Your task to perform on an android device: turn on the 12-hour format for clock Image 0: 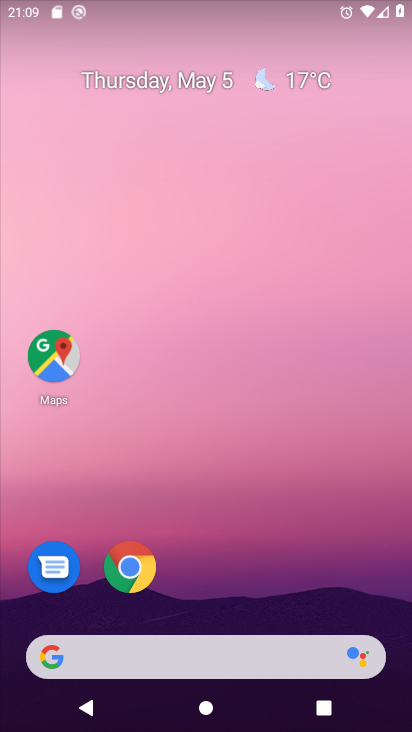
Step 0: drag from (307, 551) to (332, 61)
Your task to perform on an android device: turn on the 12-hour format for clock Image 1: 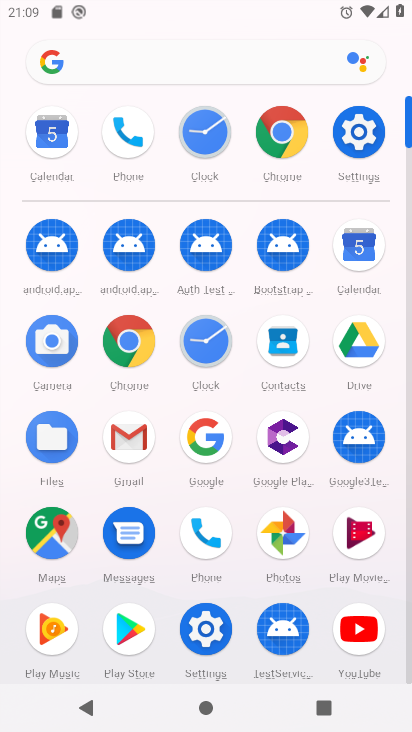
Step 1: click (208, 136)
Your task to perform on an android device: turn on the 12-hour format for clock Image 2: 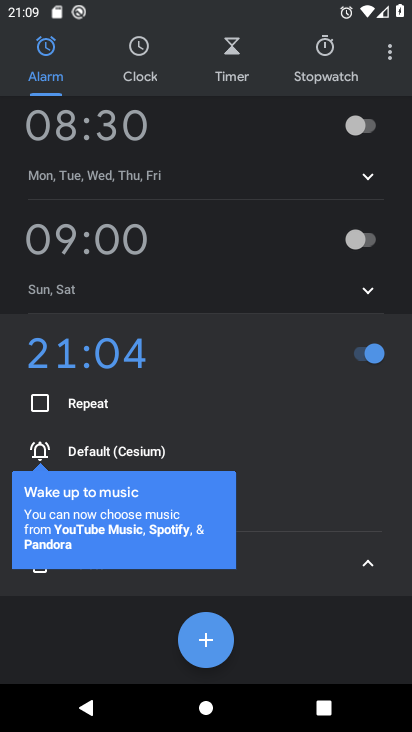
Step 2: click (393, 49)
Your task to perform on an android device: turn on the 12-hour format for clock Image 3: 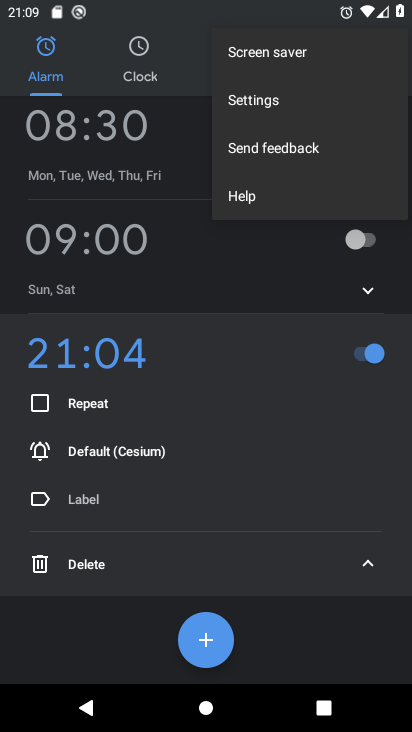
Step 3: click (315, 106)
Your task to perform on an android device: turn on the 12-hour format for clock Image 4: 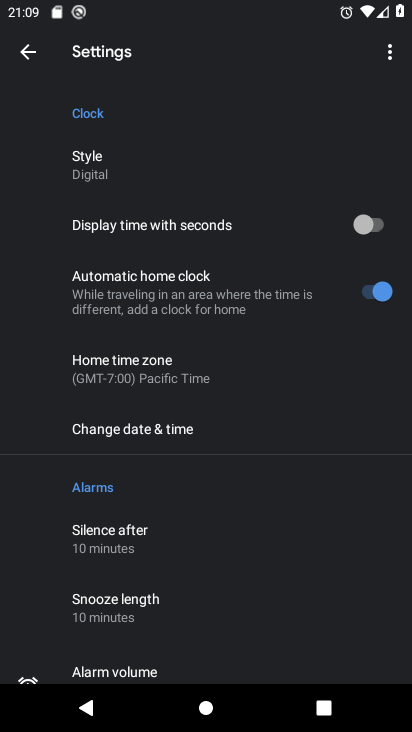
Step 4: click (240, 431)
Your task to perform on an android device: turn on the 12-hour format for clock Image 5: 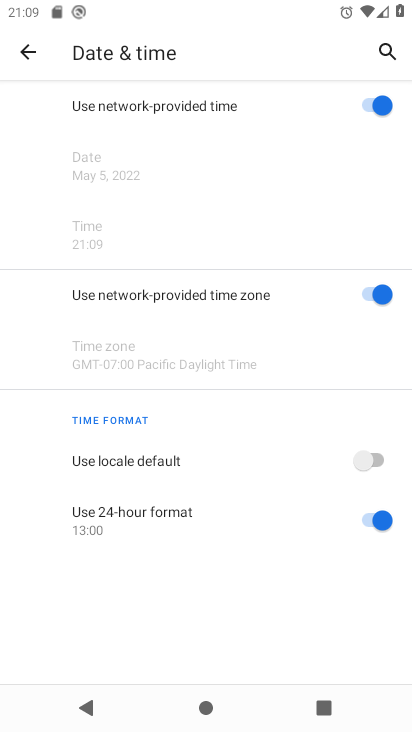
Step 5: click (363, 515)
Your task to perform on an android device: turn on the 12-hour format for clock Image 6: 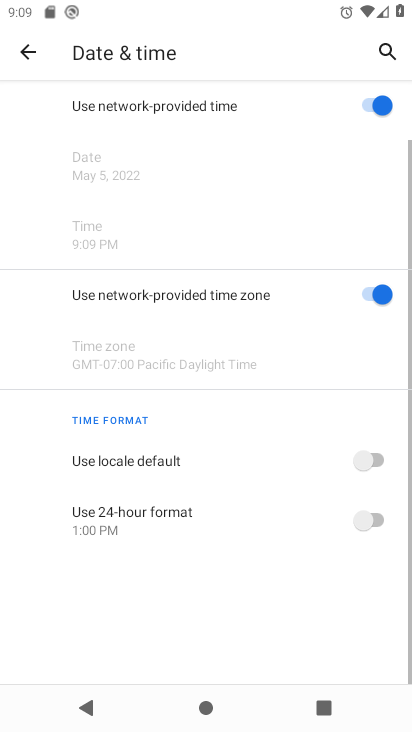
Step 6: click (369, 453)
Your task to perform on an android device: turn on the 12-hour format for clock Image 7: 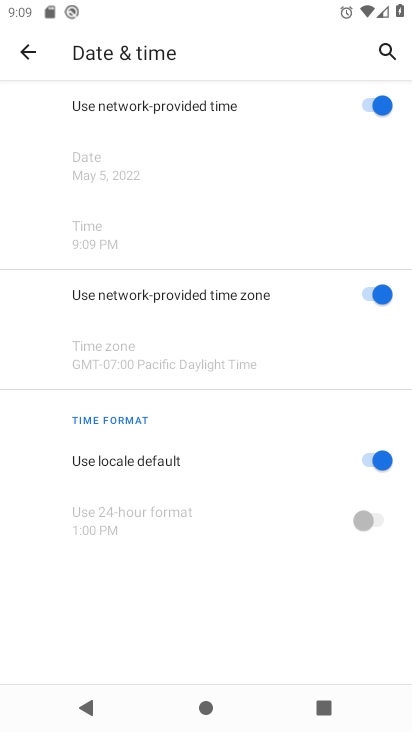
Step 7: task complete